Your task to perform on an android device: Open privacy settings Image 0: 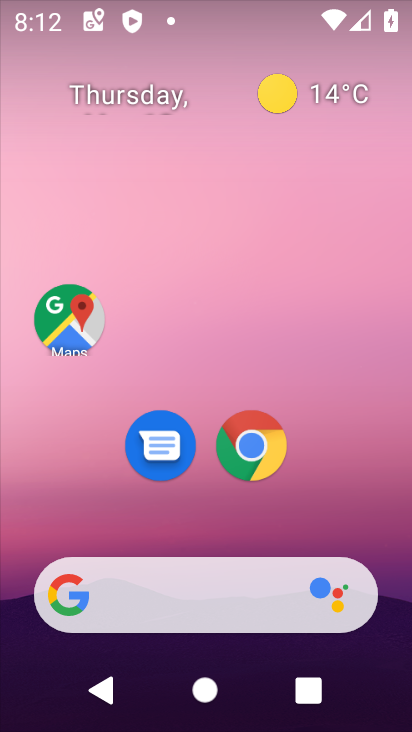
Step 0: click (224, 200)
Your task to perform on an android device: Open privacy settings Image 1: 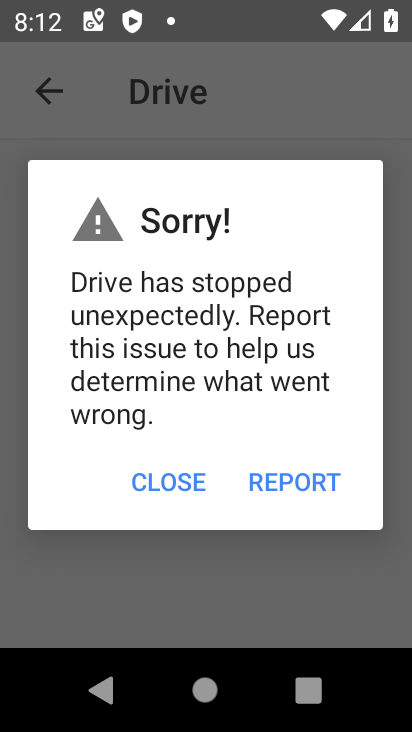
Step 1: press home button
Your task to perform on an android device: Open privacy settings Image 2: 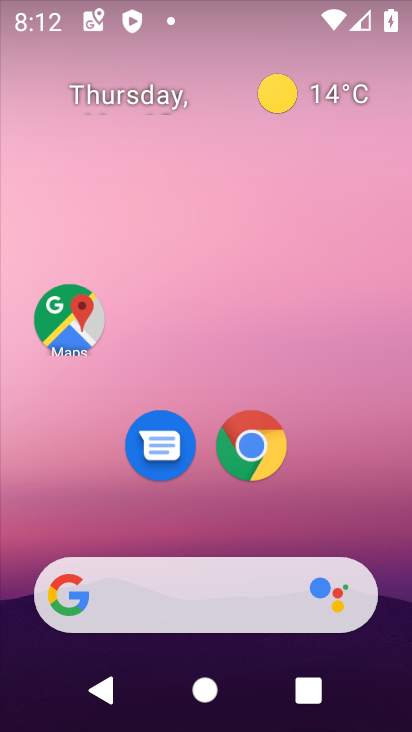
Step 2: drag from (221, 724) to (223, 181)
Your task to perform on an android device: Open privacy settings Image 3: 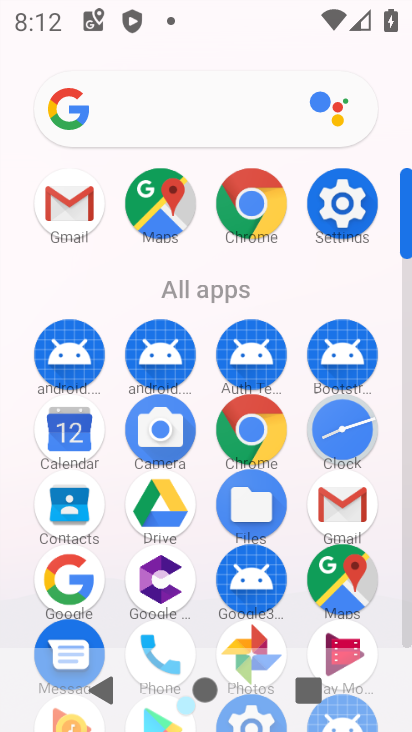
Step 3: click (341, 430)
Your task to perform on an android device: Open privacy settings Image 4: 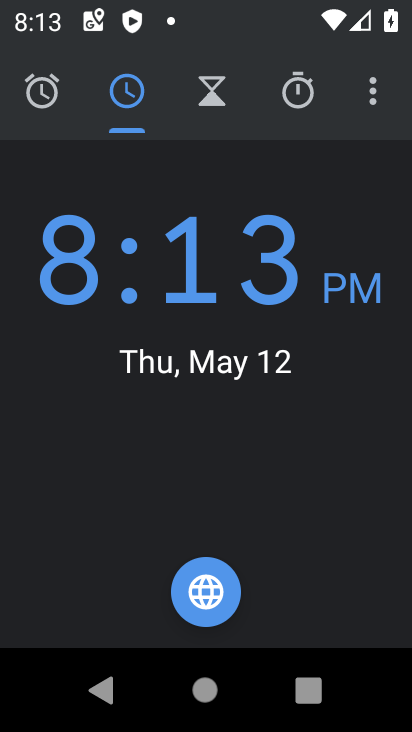
Step 4: click (201, 91)
Your task to perform on an android device: Open privacy settings Image 5: 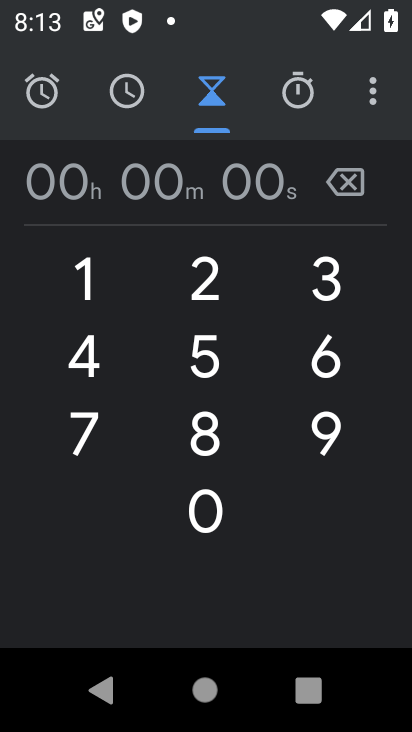
Step 5: click (205, 286)
Your task to perform on an android device: Open privacy settings Image 6: 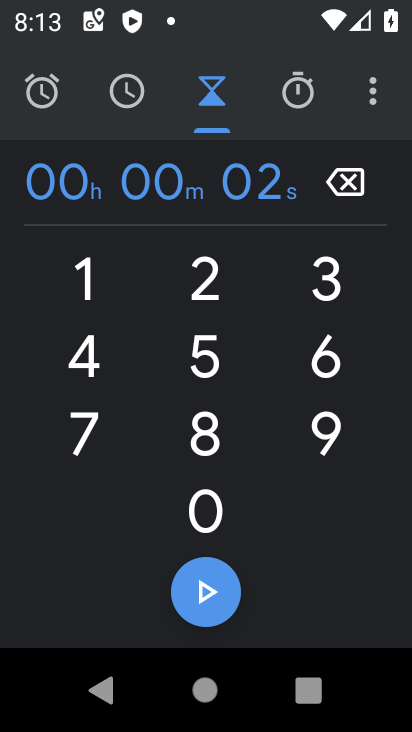
Step 6: click (206, 352)
Your task to perform on an android device: Open privacy settings Image 7: 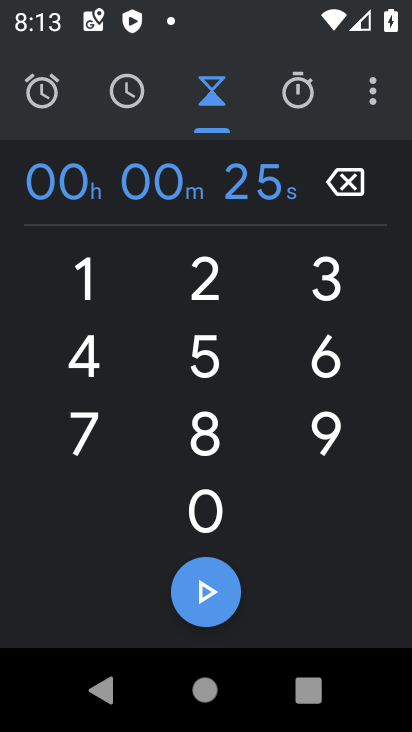
Step 7: click (85, 261)
Your task to perform on an android device: Open privacy settings Image 8: 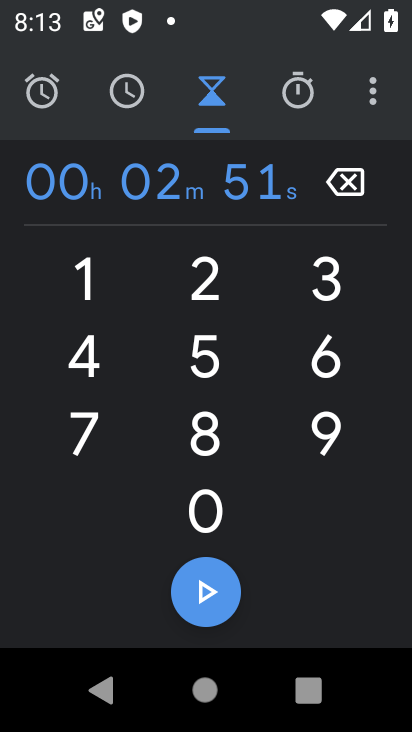
Step 8: click (313, 269)
Your task to perform on an android device: Open privacy settings Image 9: 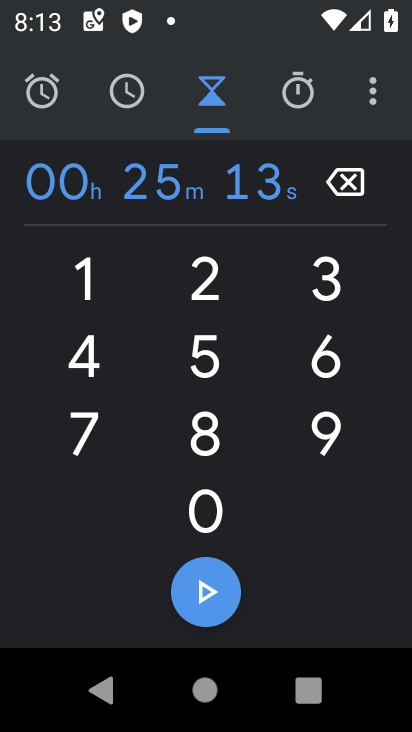
Step 9: click (198, 592)
Your task to perform on an android device: Open privacy settings Image 10: 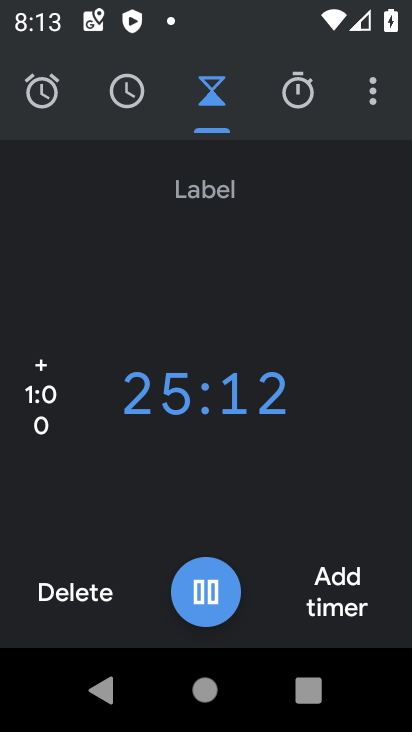
Step 10: task complete